Your task to perform on an android device: Open privacy settings Image 0: 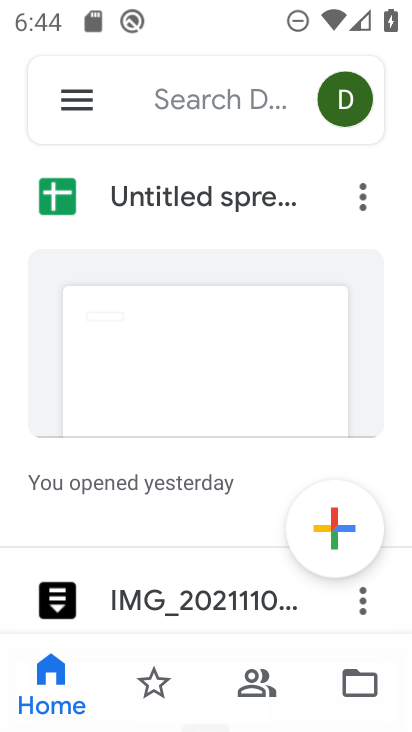
Step 0: press home button
Your task to perform on an android device: Open privacy settings Image 1: 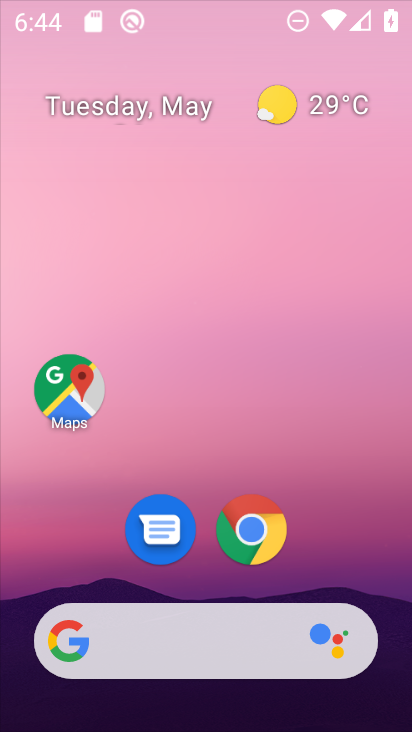
Step 1: drag from (399, 490) to (334, 42)
Your task to perform on an android device: Open privacy settings Image 2: 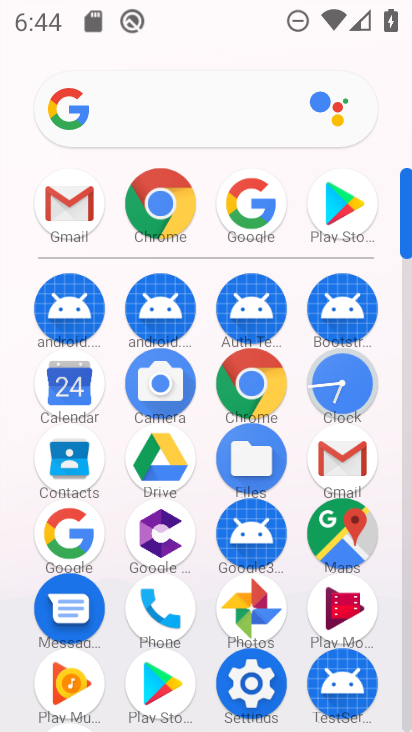
Step 2: click (237, 710)
Your task to perform on an android device: Open privacy settings Image 3: 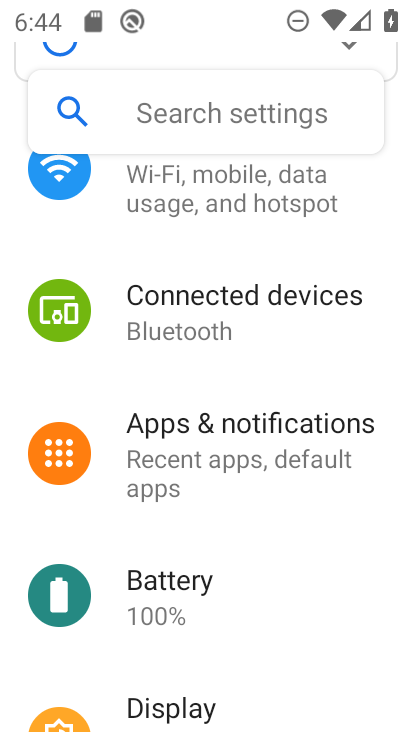
Step 3: drag from (224, 662) to (248, 89)
Your task to perform on an android device: Open privacy settings Image 4: 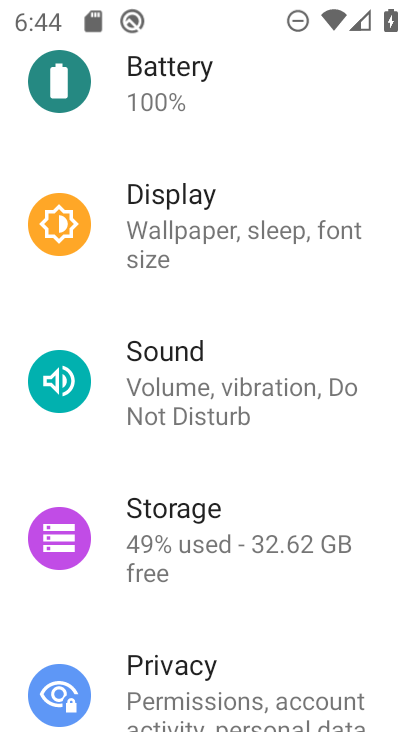
Step 4: click (141, 677)
Your task to perform on an android device: Open privacy settings Image 5: 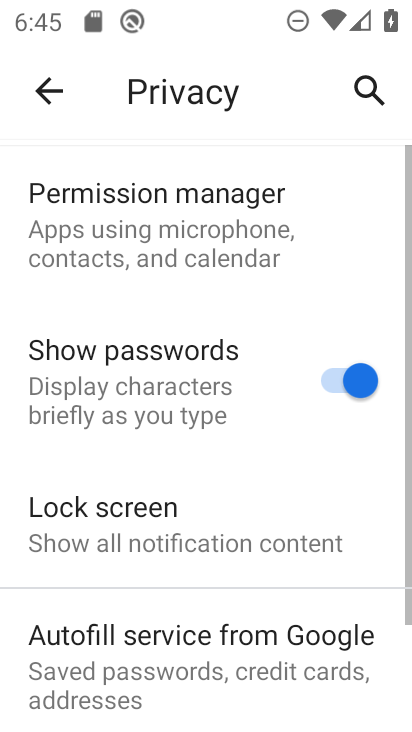
Step 5: task complete